Your task to perform on an android device: read, delete, or share a saved page in the chrome app Image 0: 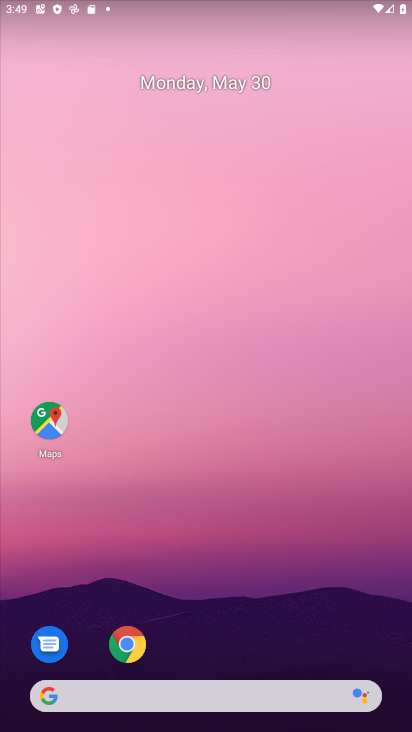
Step 0: click (135, 649)
Your task to perform on an android device: read, delete, or share a saved page in the chrome app Image 1: 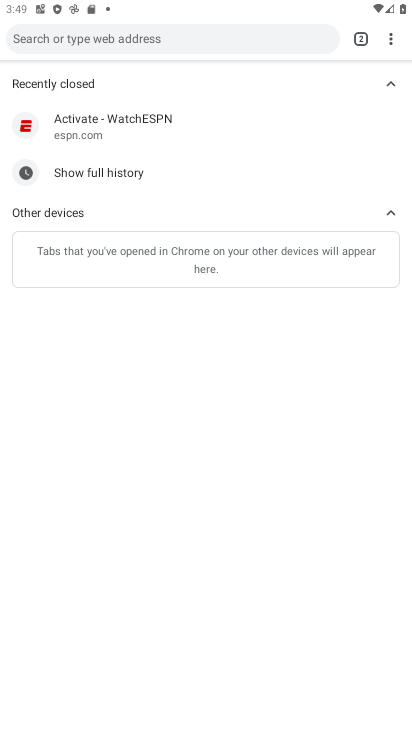
Step 1: click (401, 40)
Your task to perform on an android device: read, delete, or share a saved page in the chrome app Image 2: 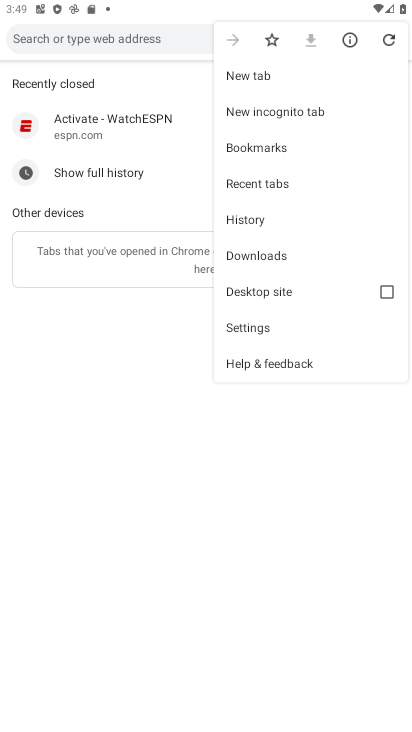
Step 2: click (280, 265)
Your task to perform on an android device: read, delete, or share a saved page in the chrome app Image 3: 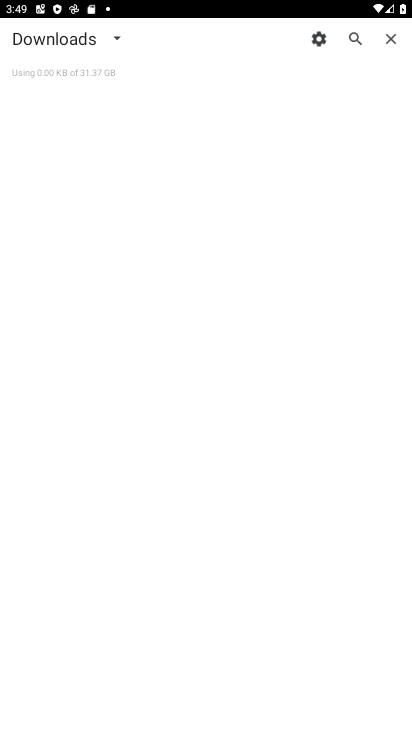
Step 3: task complete